Your task to perform on an android device: clear history in the chrome app Image 0: 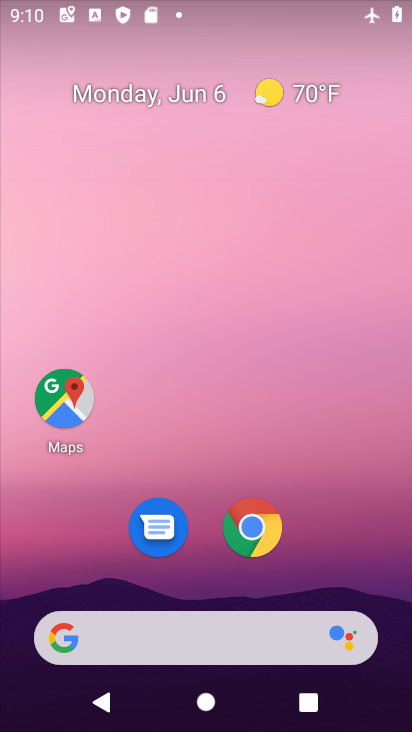
Step 0: drag from (224, 328) to (249, 128)
Your task to perform on an android device: clear history in the chrome app Image 1: 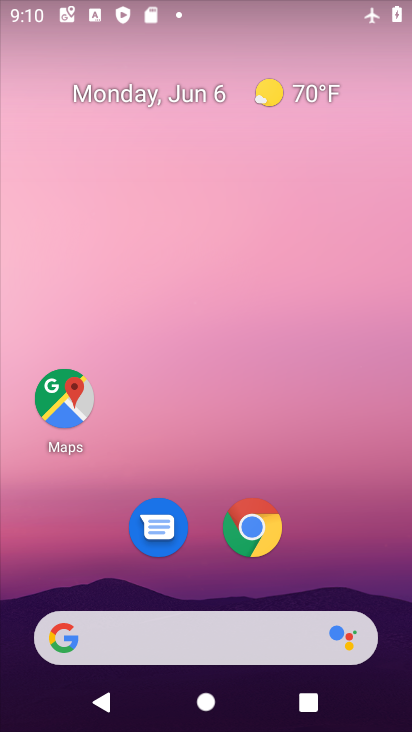
Step 1: click (248, 507)
Your task to perform on an android device: clear history in the chrome app Image 2: 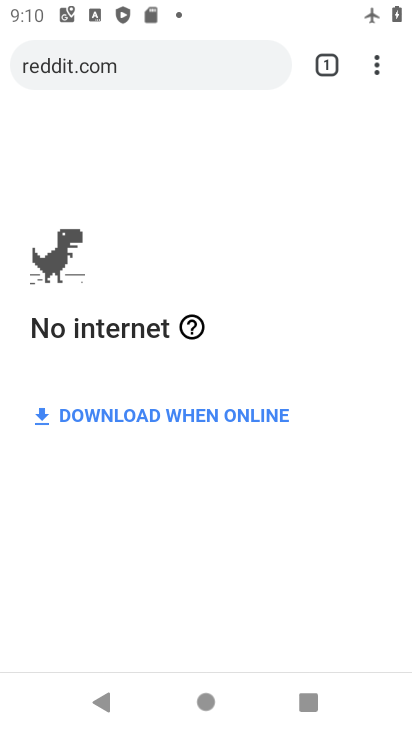
Step 2: click (383, 75)
Your task to perform on an android device: clear history in the chrome app Image 3: 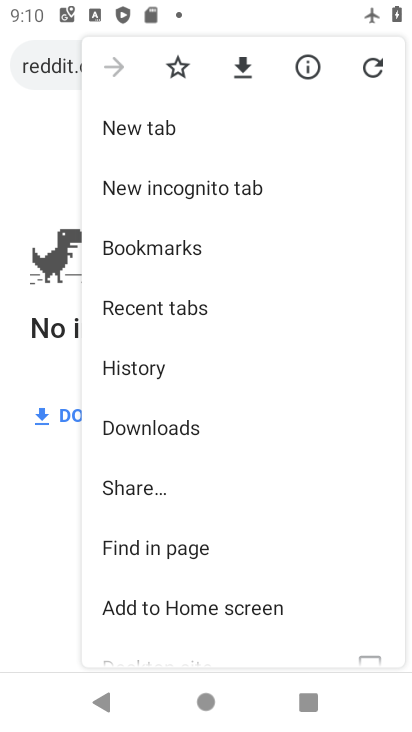
Step 3: click (173, 359)
Your task to perform on an android device: clear history in the chrome app Image 4: 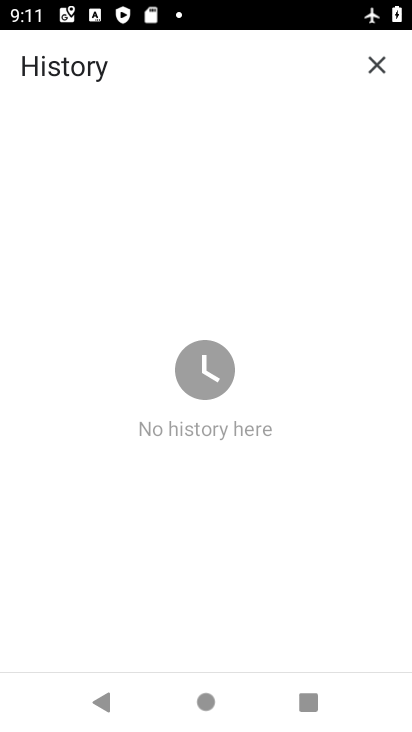
Step 4: task complete